Your task to perform on an android device: Open Android settings Image 0: 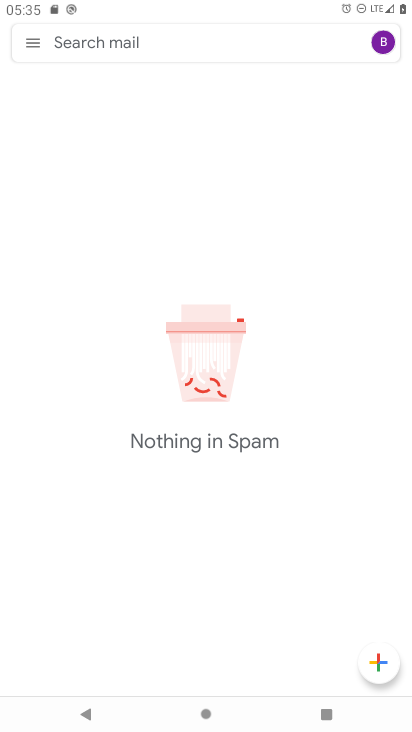
Step 0: press home button
Your task to perform on an android device: Open Android settings Image 1: 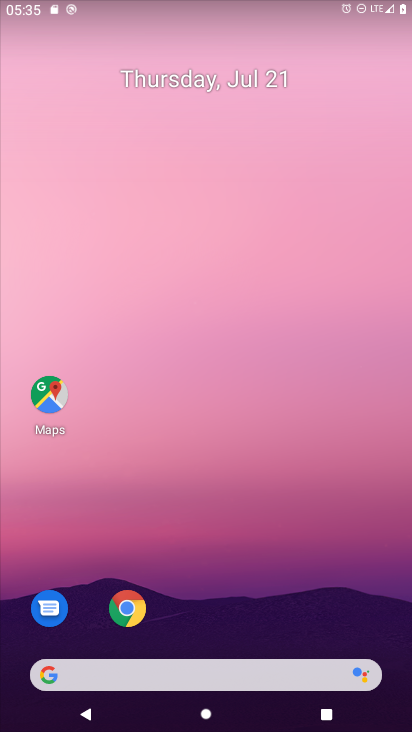
Step 1: drag from (320, 665) to (408, 6)
Your task to perform on an android device: Open Android settings Image 2: 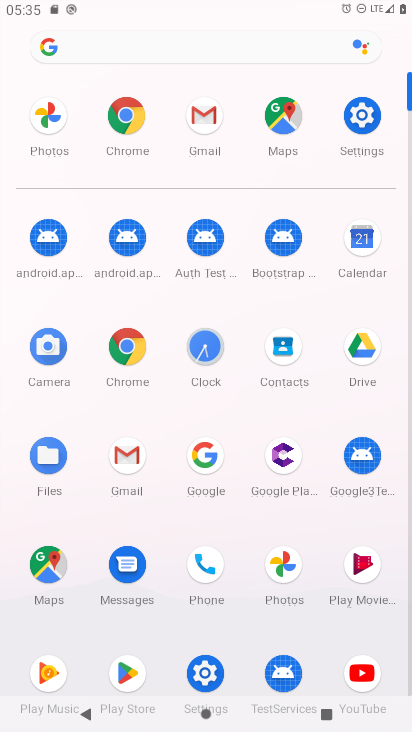
Step 2: click (363, 107)
Your task to perform on an android device: Open Android settings Image 3: 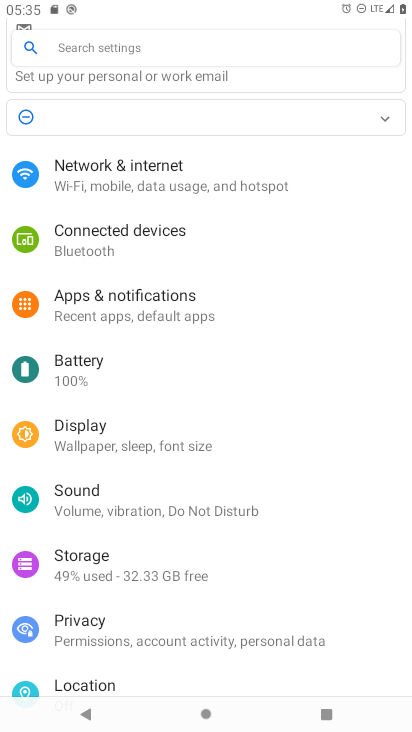
Step 3: drag from (144, 678) to (216, 140)
Your task to perform on an android device: Open Android settings Image 4: 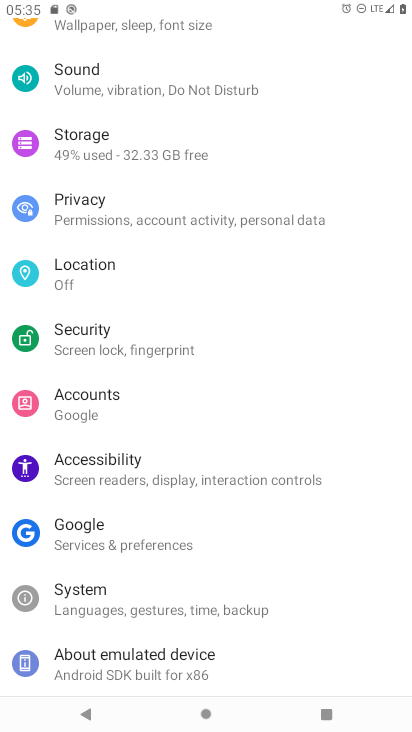
Step 4: click (144, 646)
Your task to perform on an android device: Open Android settings Image 5: 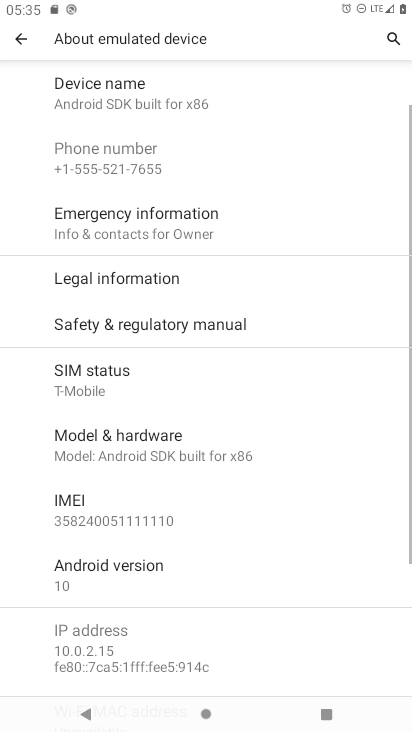
Step 5: task complete